Your task to perform on an android device: When is my next meeting? Image 0: 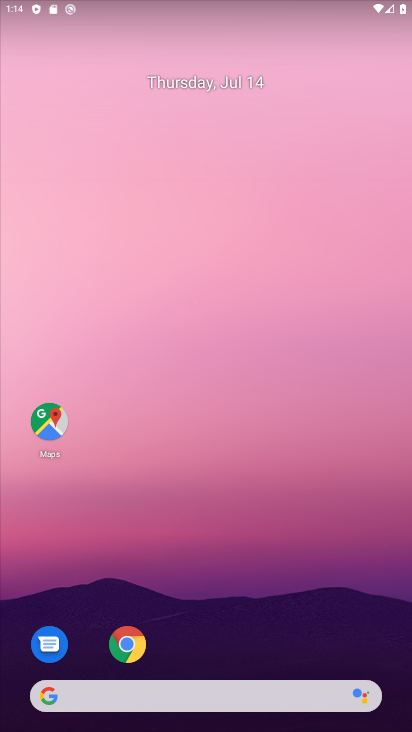
Step 0: drag from (251, 633) to (236, 256)
Your task to perform on an android device: When is my next meeting? Image 1: 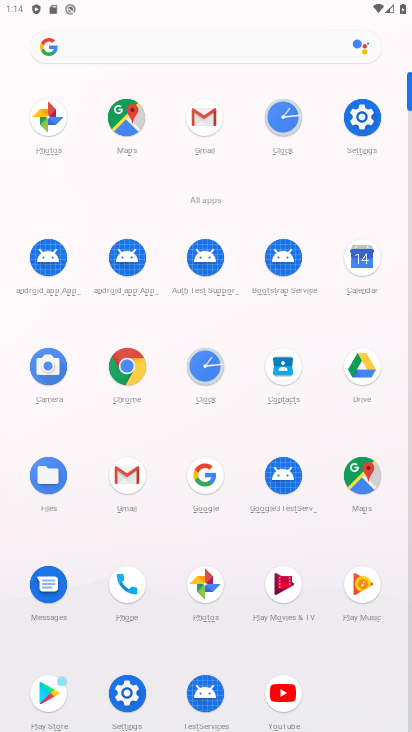
Step 1: click (351, 265)
Your task to perform on an android device: When is my next meeting? Image 2: 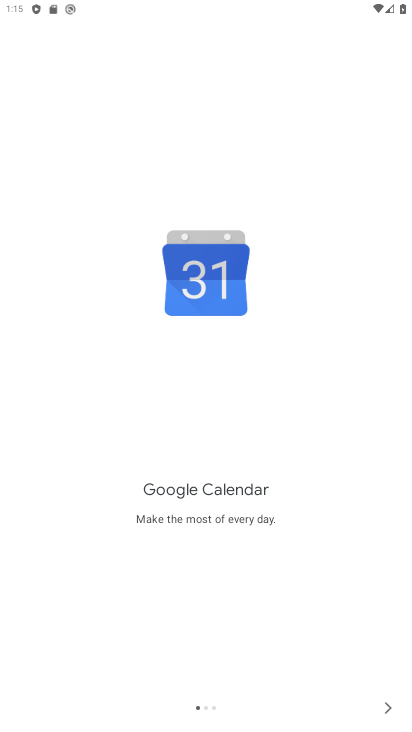
Step 2: click (391, 706)
Your task to perform on an android device: When is my next meeting? Image 3: 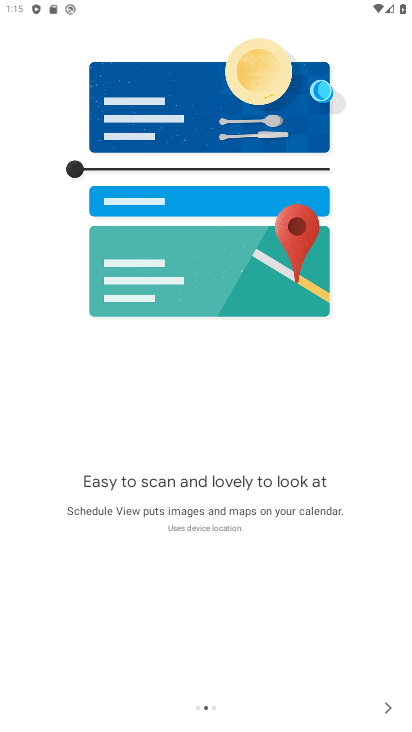
Step 3: click (393, 710)
Your task to perform on an android device: When is my next meeting? Image 4: 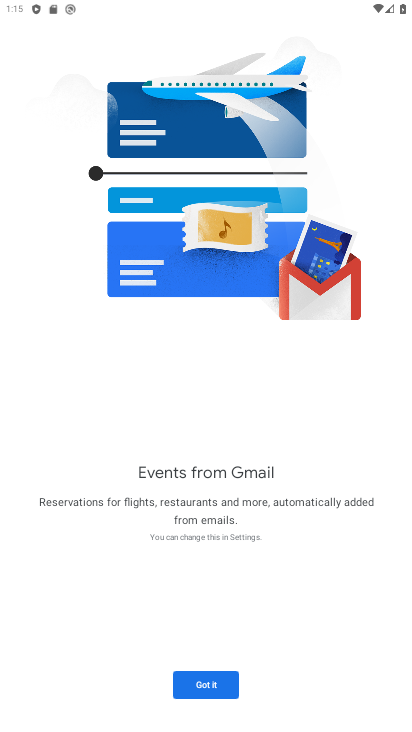
Step 4: click (195, 686)
Your task to perform on an android device: When is my next meeting? Image 5: 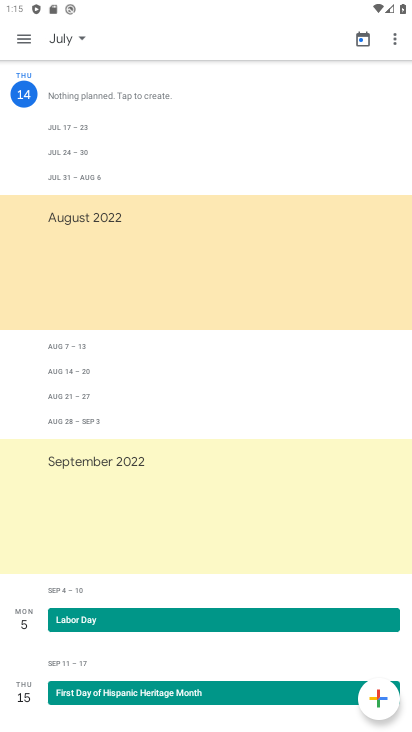
Step 5: click (72, 41)
Your task to perform on an android device: When is my next meeting? Image 6: 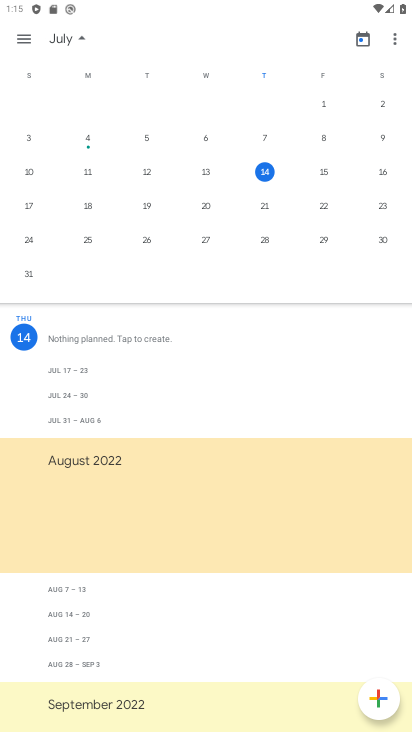
Step 6: click (268, 164)
Your task to perform on an android device: When is my next meeting? Image 7: 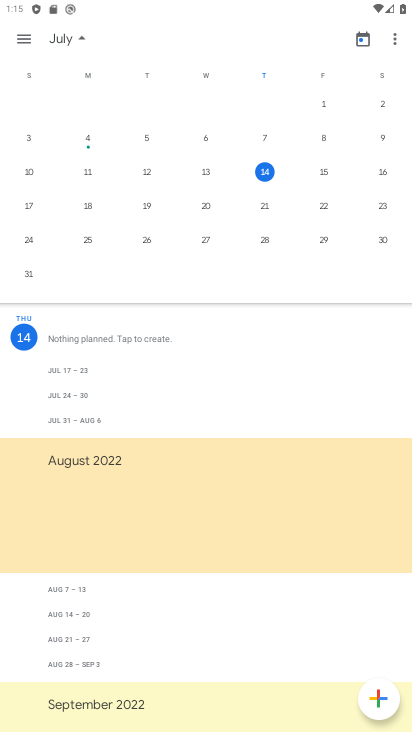
Step 7: task complete